Your task to perform on an android device: What is the news today? Image 0: 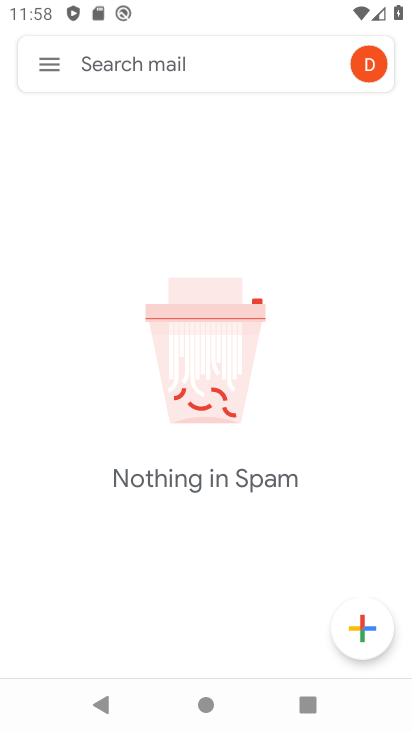
Step 0: press home button
Your task to perform on an android device: What is the news today? Image 1: 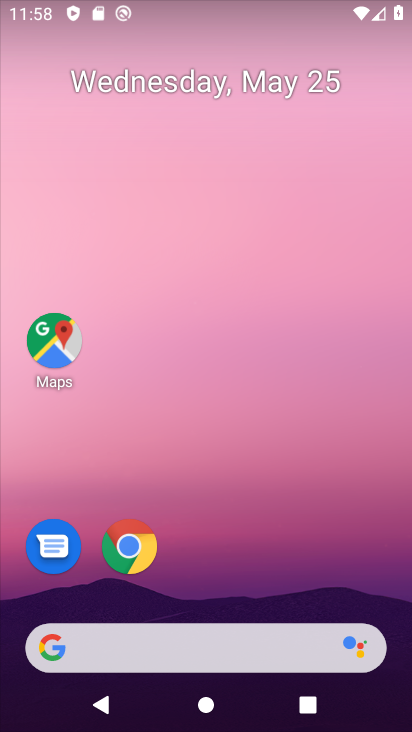
Step 1: drag from (179, 690) to (238, 14)
Your task to perform on an android device: What is the news today? Image 2: 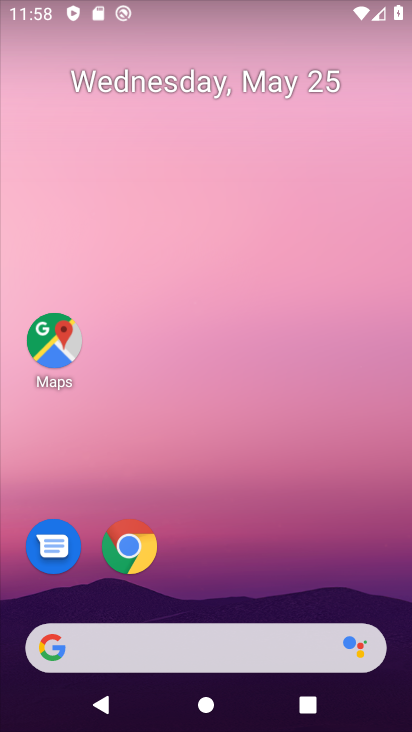
Step 2: click (248, 663)
Your task to perform on an android device: What is the news today? Image 3: 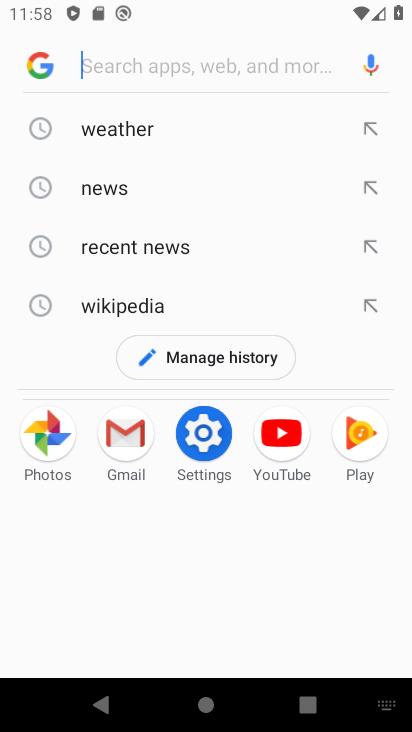
Step 3: type "news today "
Your task to perform on an android device: What is the news today? Image 4: 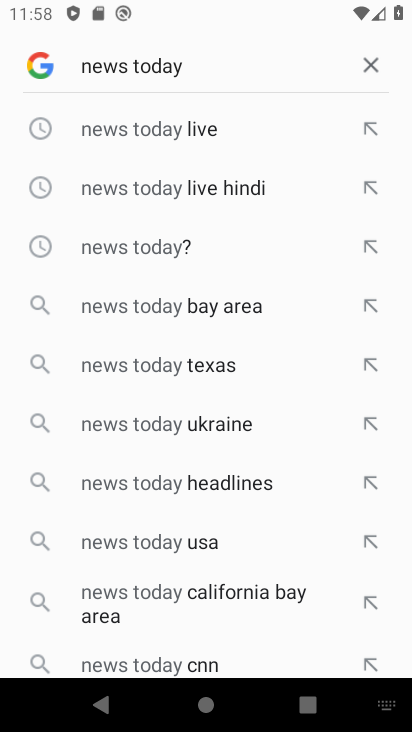
Step 4: click (220, 243)
Your task to perform on an android device: What is the news today? Image 5: 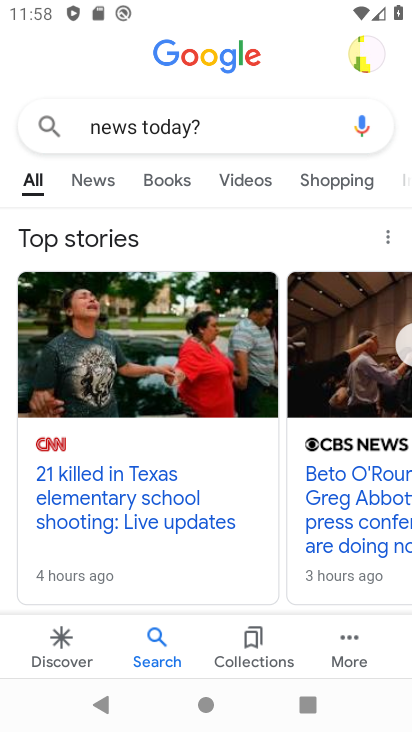
Step 5: task complete